Your task to perform on an android device: What's on my calendar today? Image 0: 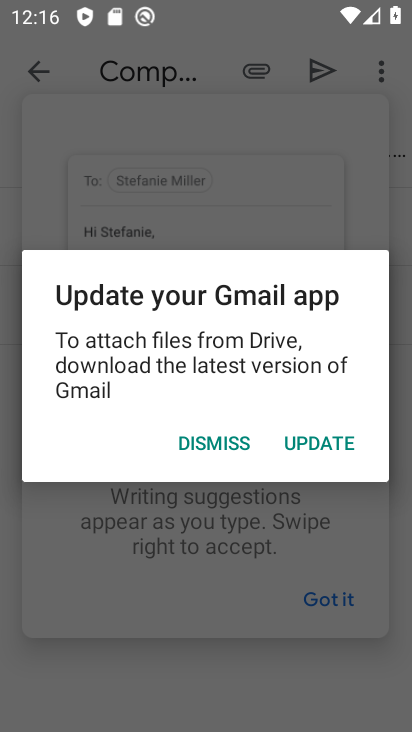
Step 0: press home button
Your task to perform on an android device: What's on my calendar today? Image 1: 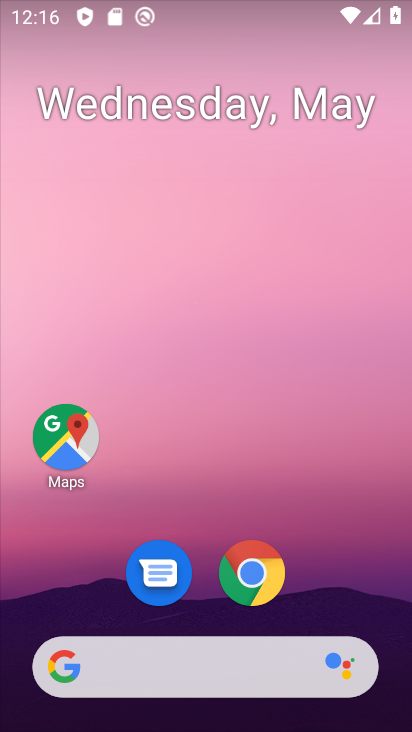
Step 1: drag from (370, 573) to (353, 136)
Your task to perform on an android device: What's on my calendar today? Image 2: 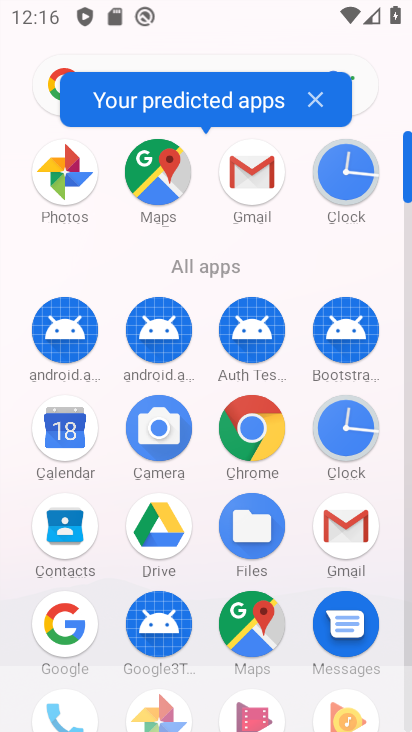
Step 2: drag from (389, 565) to (392, 251)
Your task to perform on an android device: What's on my calendar today? Image 3: 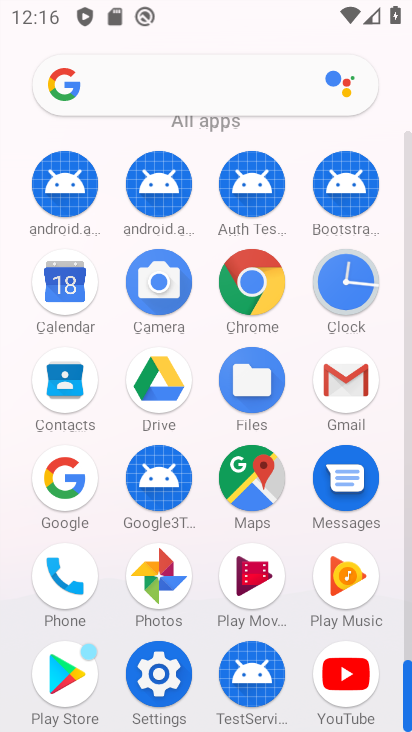
Step 3: click (73, 308)
Your task to perform on an android device: What's on my calendar today? Image 4: 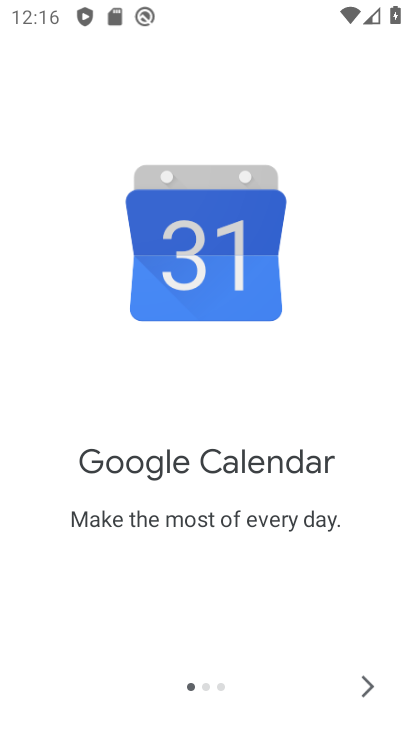
Step 4: click (366, 694)
Your task to perform on an android device: What's on my calendar today? Image 5: 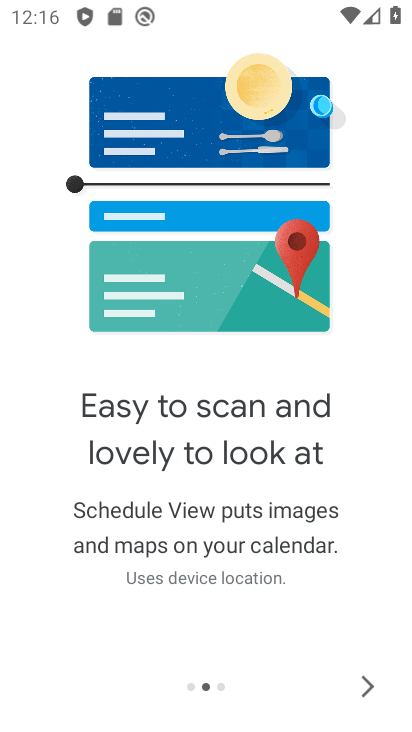
Step 5: click (366, 694)
Your task to perform on an android device: What's on my calendar today? Image 6: 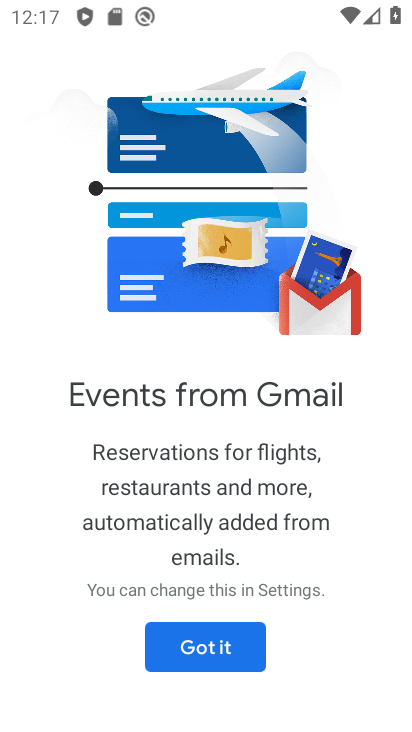
Step 6: click (249, 655)
Your task to perform on an android device: What's on my calendar today? Image 7: 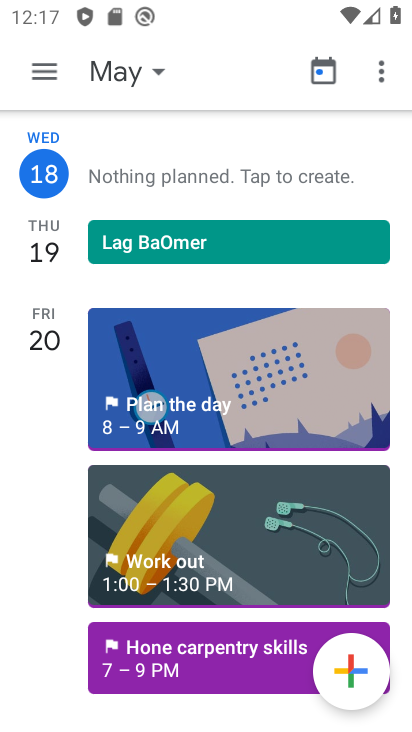
Step 7: click (153, 62)
Your task to perform on an android device: What's on my calendar today? Image 8: 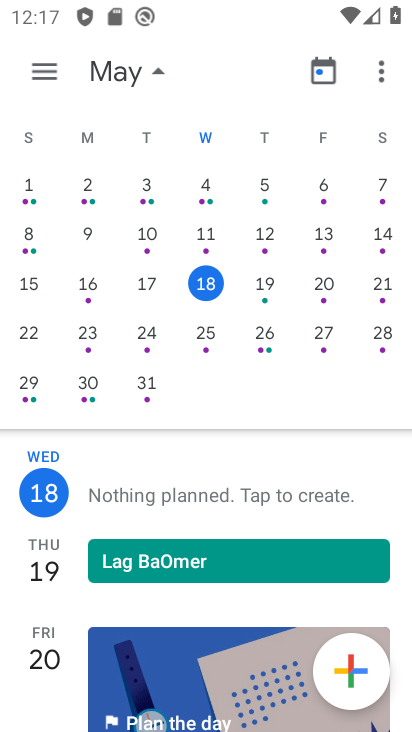
Step 8: click (207, 279)
Your task to perform on an android device: What's on my calendar today? Image 9: 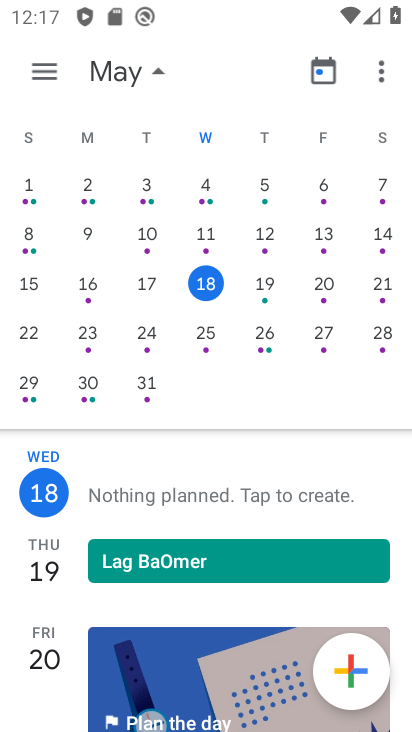
Step 9: task complete